Your task to perform on an android device: change the clock display to show seconds Image 0: 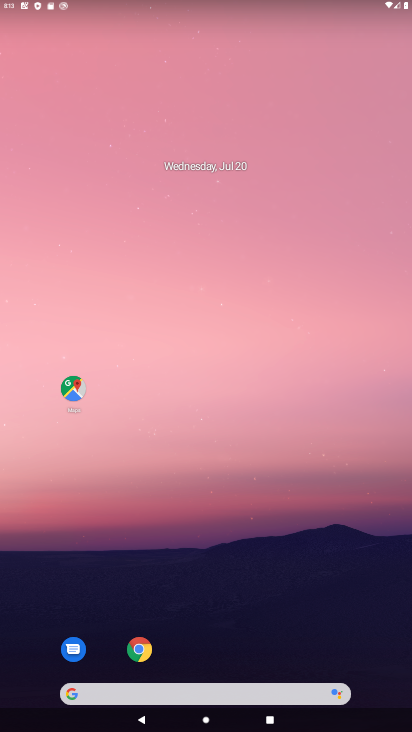
Step 0: drag from (254, 659) to (195, 82)
Your task to perform on an android device: change the clock display to show seconds Image 1: 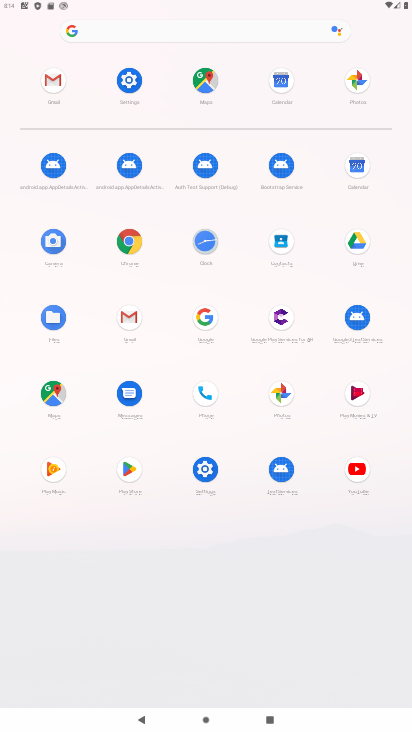
Step 1: click (127, 101)
Your task to perform on an android device: change the clock display to show seconds Image 2: 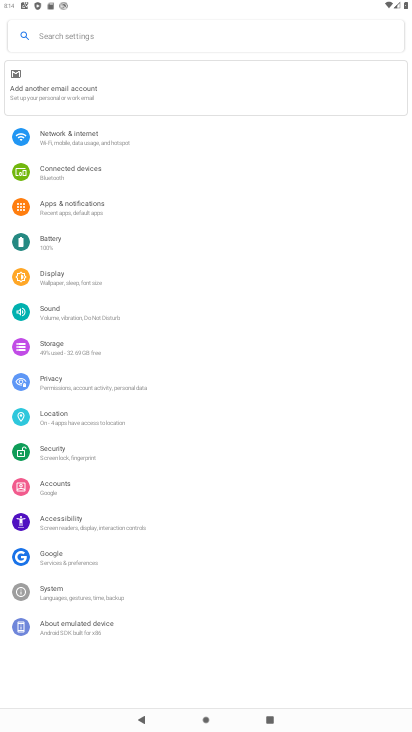
Step 2: press home button
Your task to perform on an android device: change the clock display to show seconds Image 3: 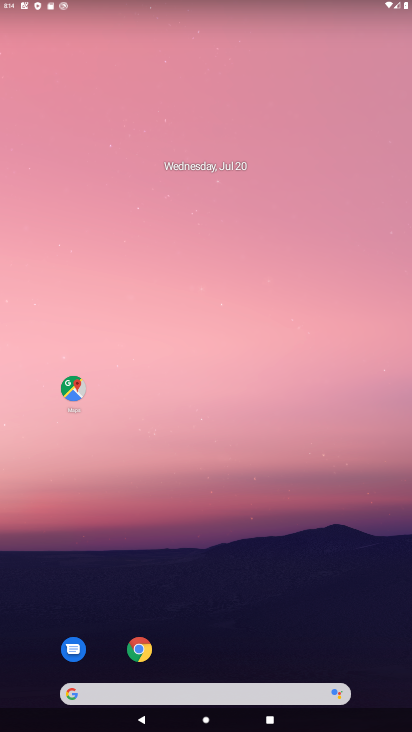
Step 3: drag from (258, 632) to (351, 85)
Your task to perform on an android device: change the clock display to show seconds Image 4: 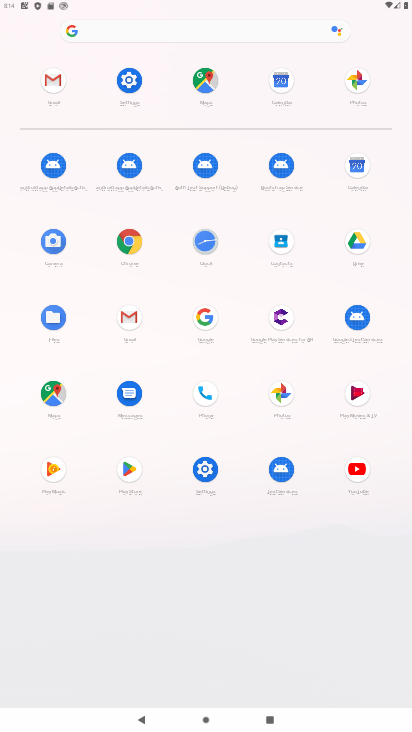
Step 4: click (193, 254)
Your task to perform on an android device: change the clock display to show seconds Image 5: 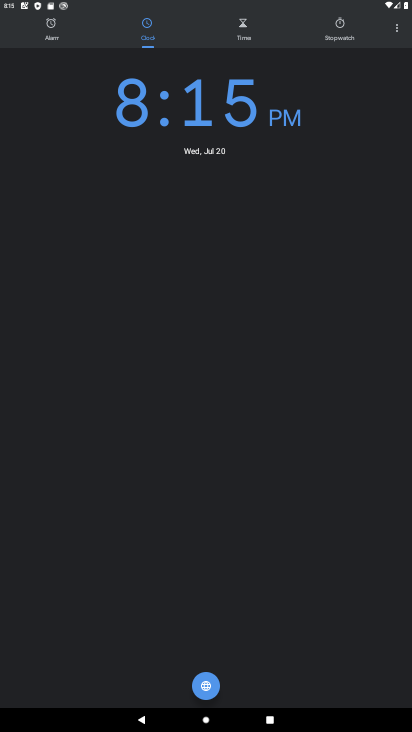
Step 5: task complete